Your task to perform on an android device: Open Wikipedia Image 0: 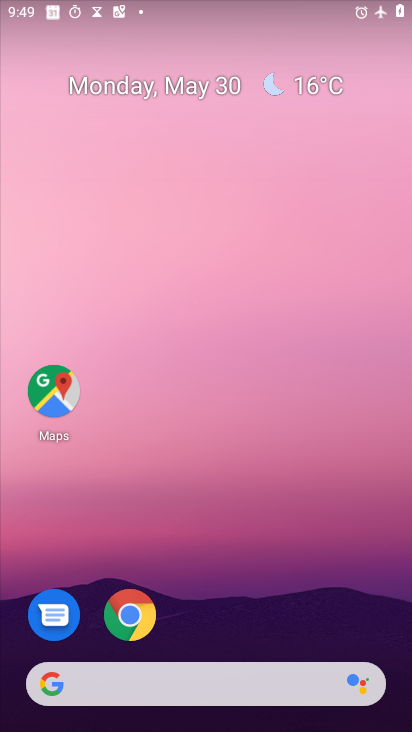
Step 0: drag from (257, 606) to (209, 43)
Your task to perform on an android device: Open Wikipedia Image 1: 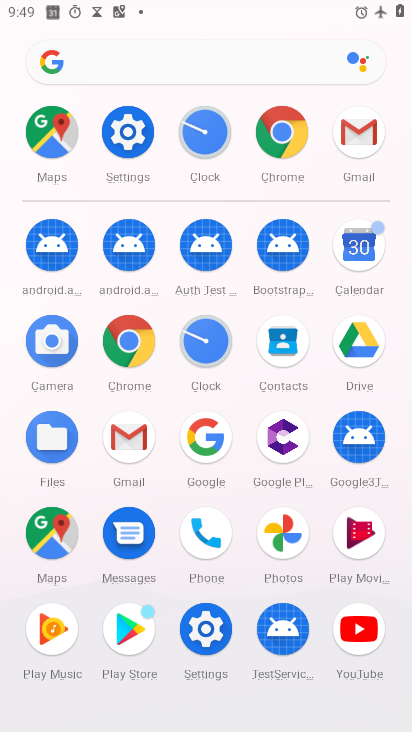
Step 1: click (293, 138)
Your task to perform on an android device: Open Wikipedia Image 2: 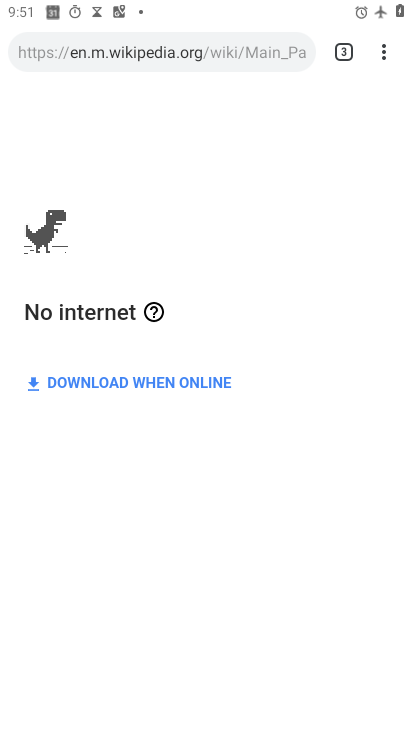
Step 2: click (221, 56)
Your task to perform on an android device: Open Wikipedia Image 3: 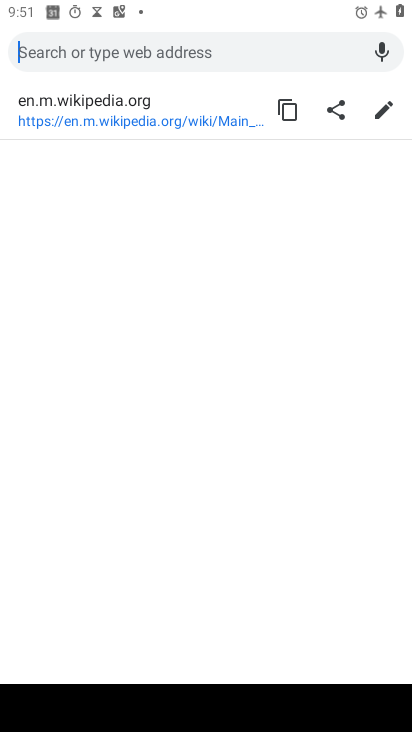
Step 3: click (180, 104)
Your task to perform on an android device: Open Wikipedia Image 4: 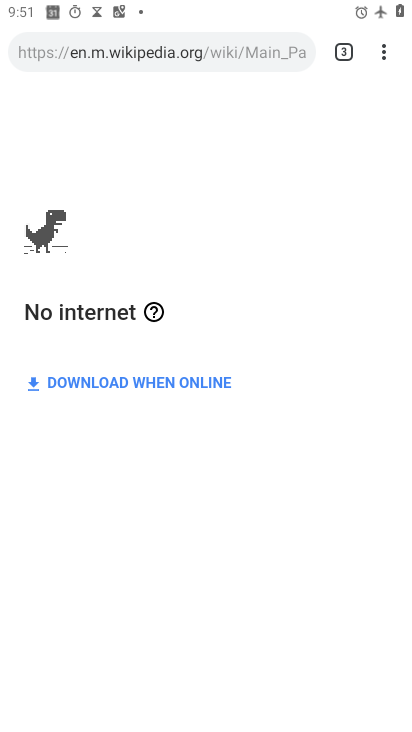
Step 4: task complete